Your task to perform on an android device: Open Youtube and go to "Your channel" Image 0: 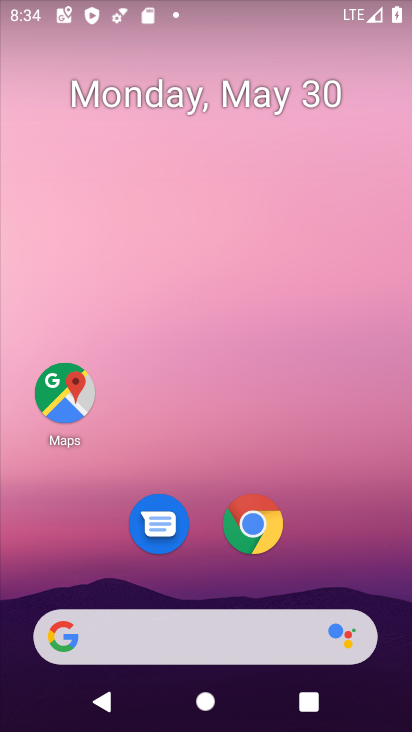
Step 0: drag from (207, 483) to (249, 0)
Your task to perform on an android device: Open Youtube and go to "Your channel" Image 1: 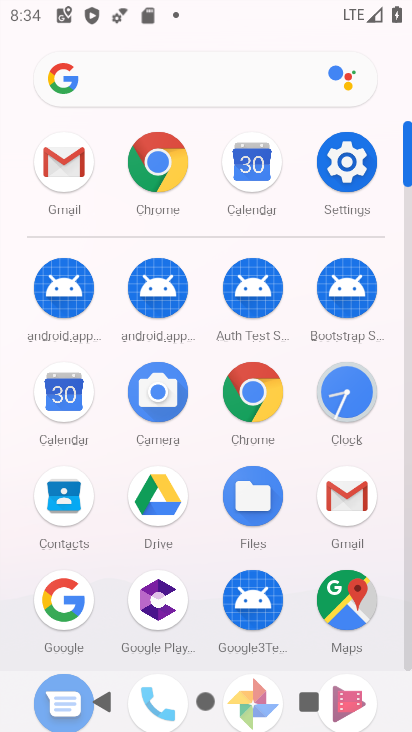
Step 1: drag from (212, 426) to (202, 42)
Your task to perform on an android device: Open Youtube and go to "Your channel" Image 2: 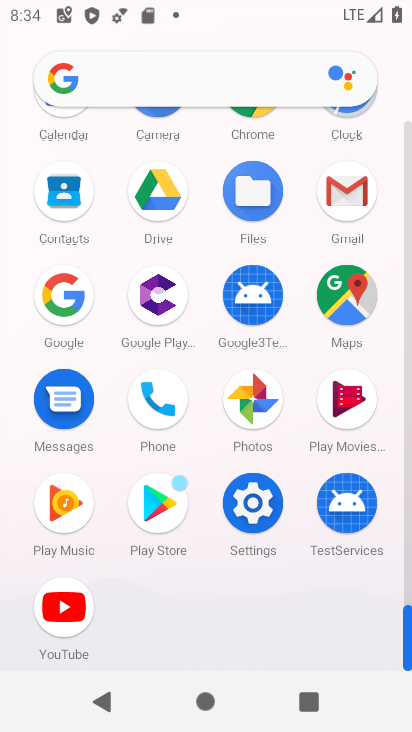
Step 2: click (63, 616)
Your task to perform on an android device: Open Youtube and go to "Your channel" Image 3: 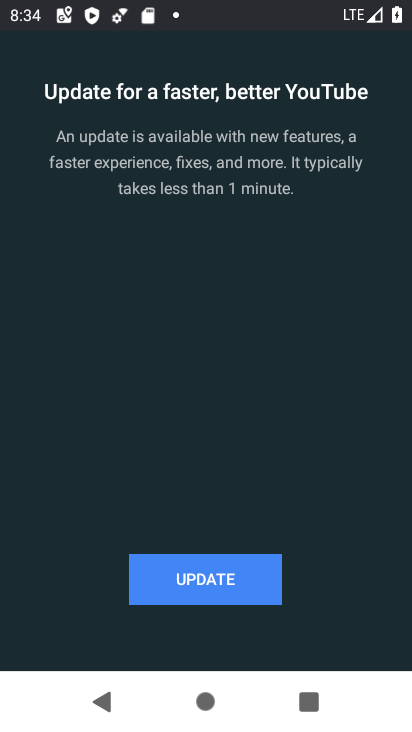
Step 3: click (191, 581)
Your task to perform on an android device: Open Youtube and go to "Your channel" Image 4: 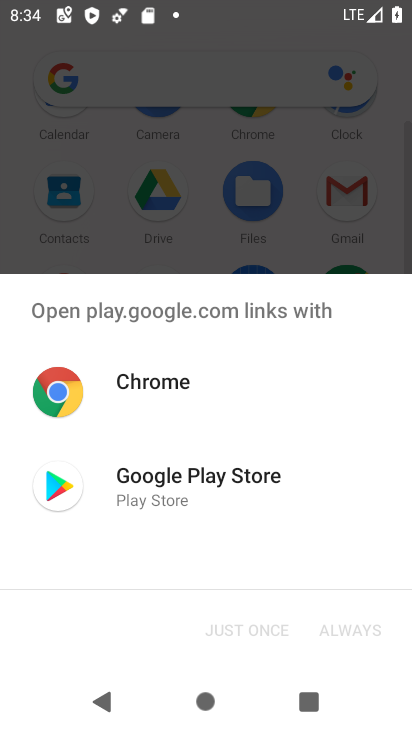
Step 4: click (136, 496)
Your task to perform on an android device: Open Youtube and go to "Your channel" Image 5: 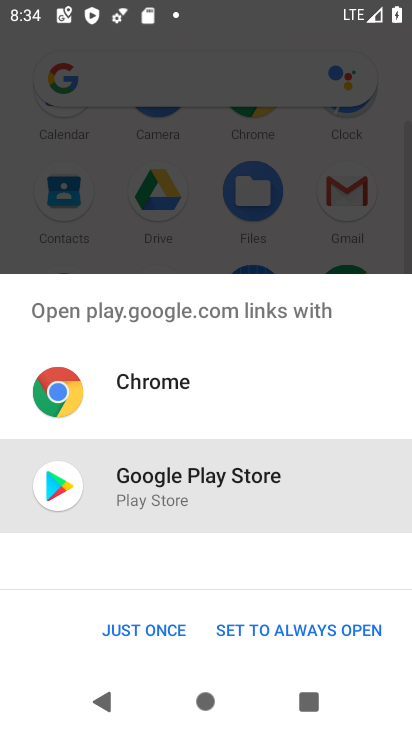
Step 5: click (154, 624)
Your task to perform on an android device: Open Youtube and go to "Your channel" Image 6: 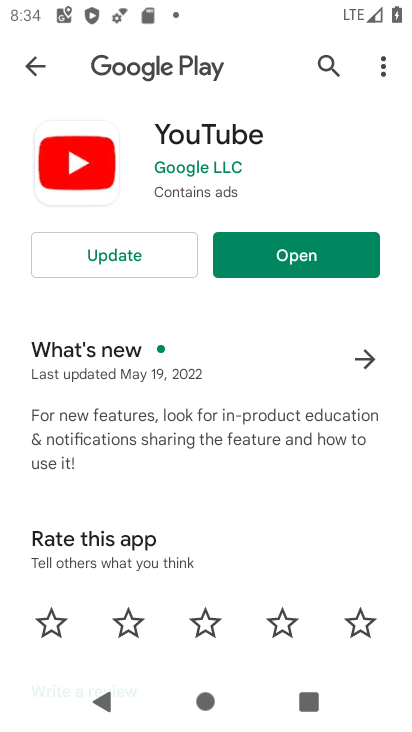
Step 6: click (294, 252)
Your task to perform on an android device: Open Youtube and go to "Your channel" Image 7: 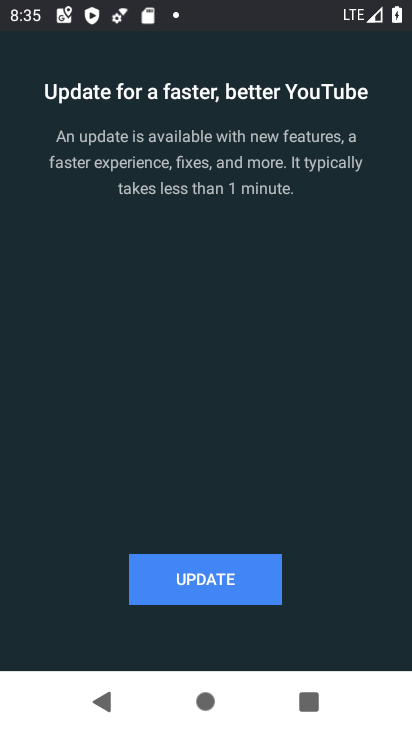
Step 7: click (241, 568)
Your task to perform on an android device: Open Youtube and go to "Your channel" Image 8: 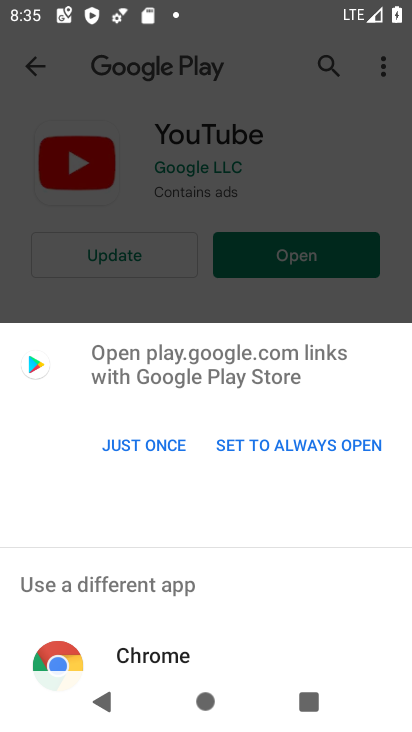
Step 8: click (146, 431)
Your task to perform on an android device: Open Youtube and go to "Your channel" Image 9: 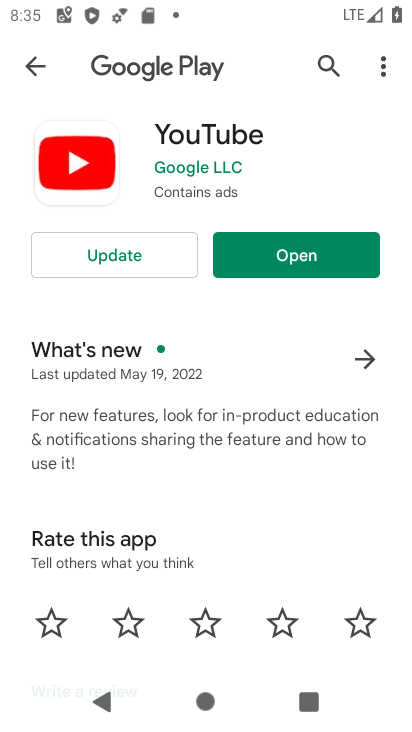
Step 9: click (124, 258)
Your task to perform on an android device: Open Youtube and go to "Your channel" Image 10: 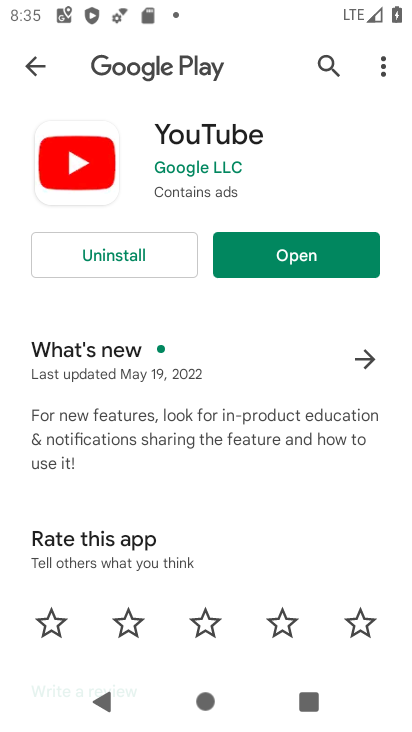
Step 10: click (281, 255)
Your task to perform on an android device: Open Youtube and go to "Your channel" Image 11: 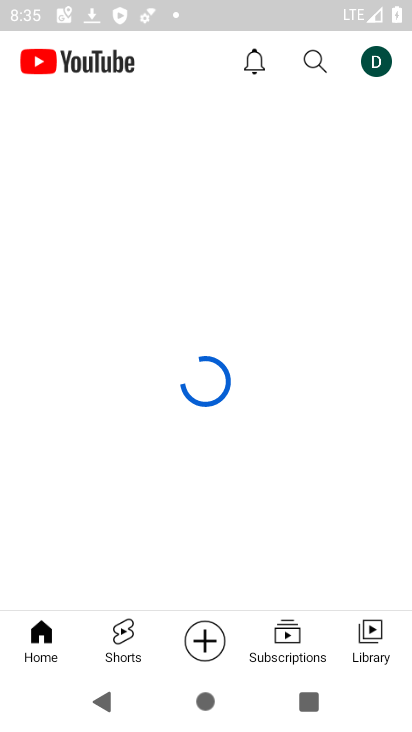
Step 11: click (374, 51)
Your task to perform on an android device: Open Youtube and go to "Your channel" Image 12: 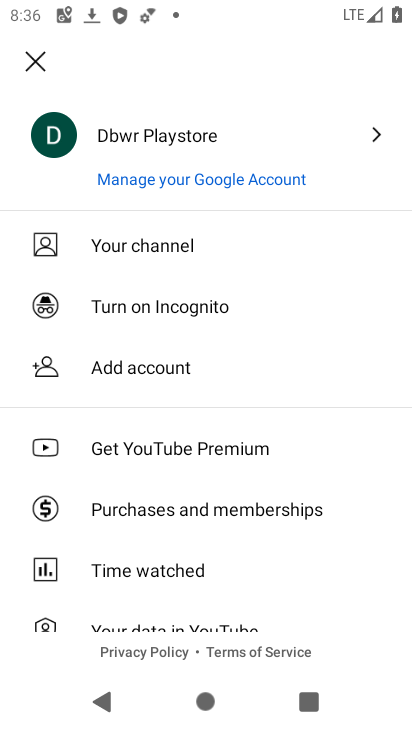
Step 12: click (217, 233)
Your task to perform on an android device: Open Youtube and go to "Your channel" Image 13: 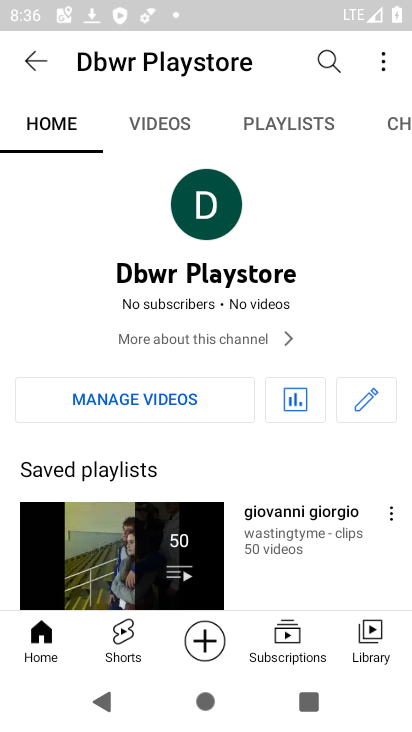
Step 13: task complete